Your task to perform on an android device: Go to wifi settings Image 0: 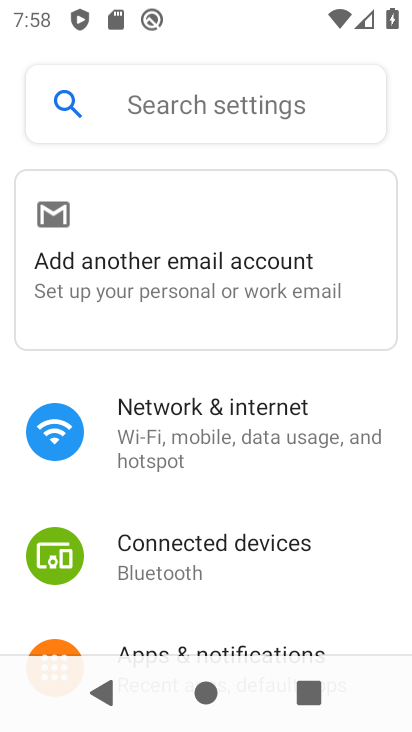
Step 0: click (318, 502)
Your task to perform on an android device: Go to wifi settings Image 1: 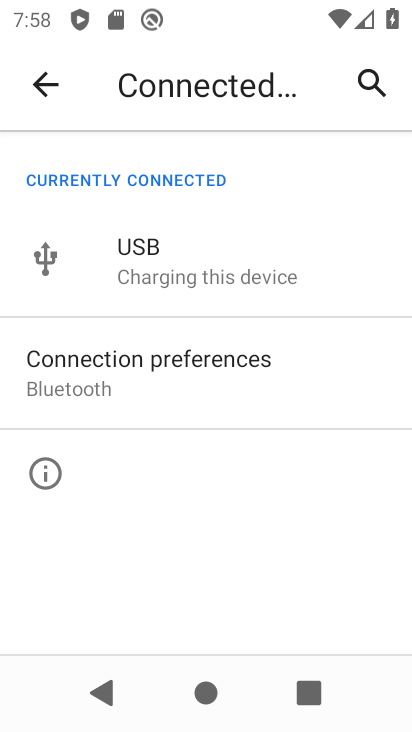
Step 1: press home button
Your task to perform on an android device: Go to wifi settings Image 2: 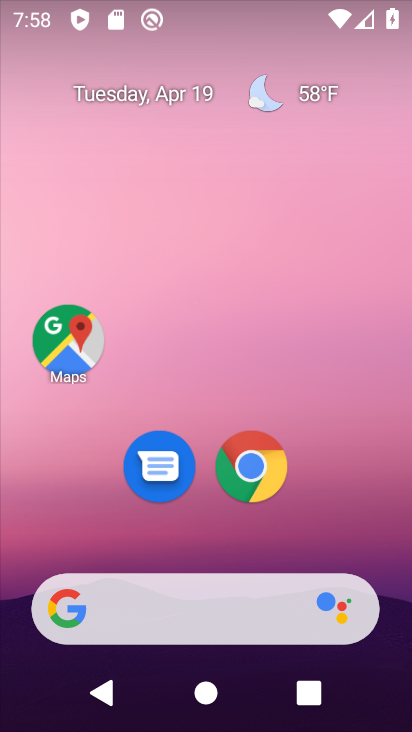
Step 2: drag from (207, 434) to (235, 147)
Your task to perform on an android device: Go to wifi settings Image 3: 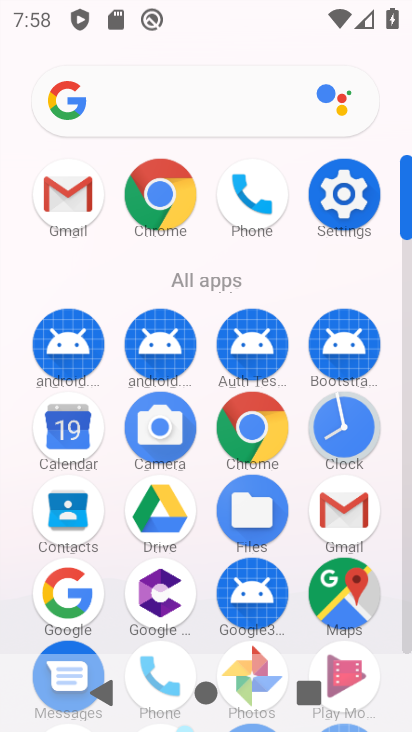
Step 3: click (329, 198)
Your task to perform on an android device: Go to wifi settings Image 4: 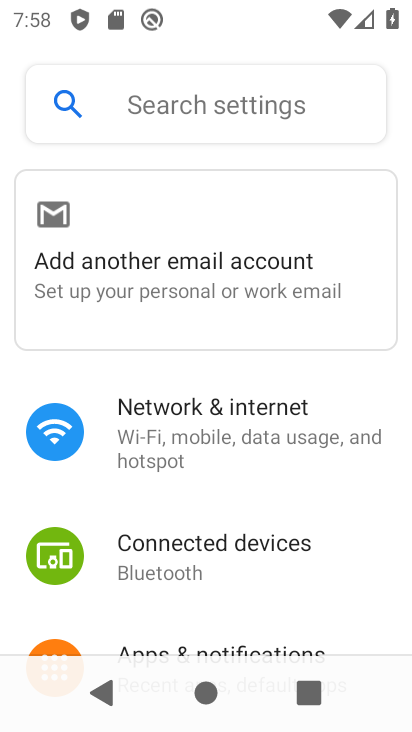
Step 4: click (246, 408)
Your task to perform on an android device: Go to wifi settings Image 5: 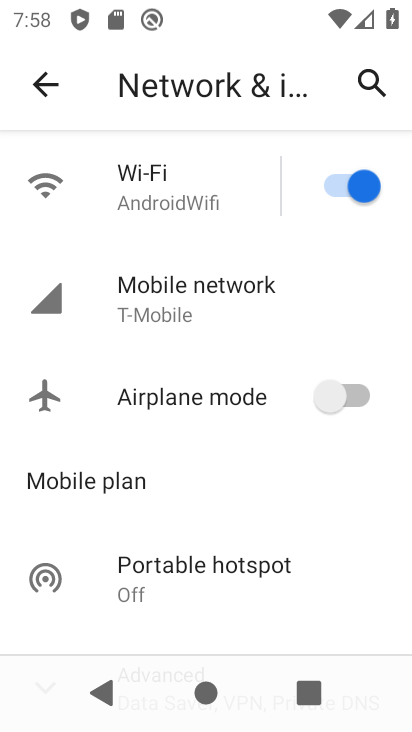
Step 5: click (170, 199)
Your task to perform on an android device: Go to wifi settings Image 6: 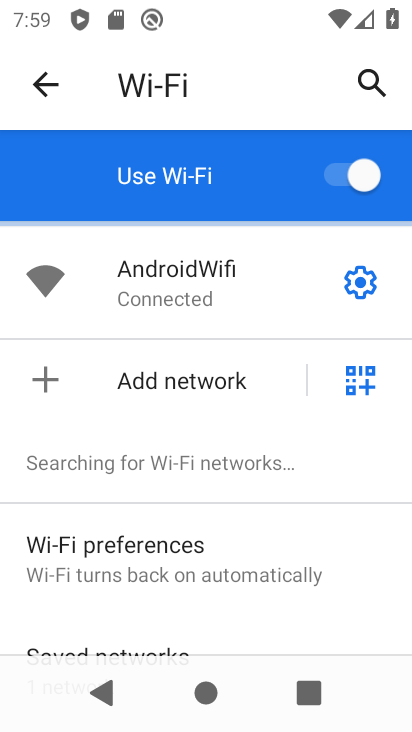
Step 6: task complete